Your task to perform on an android device: Open the calendar and show me this week's events Image 0: 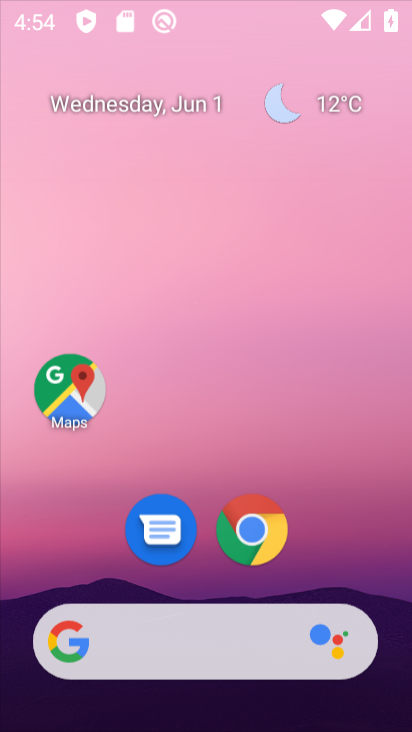
Step 0: click (179, 160)
Your task to perform on an android device: Open the calendar and show me this week's events Image 1: 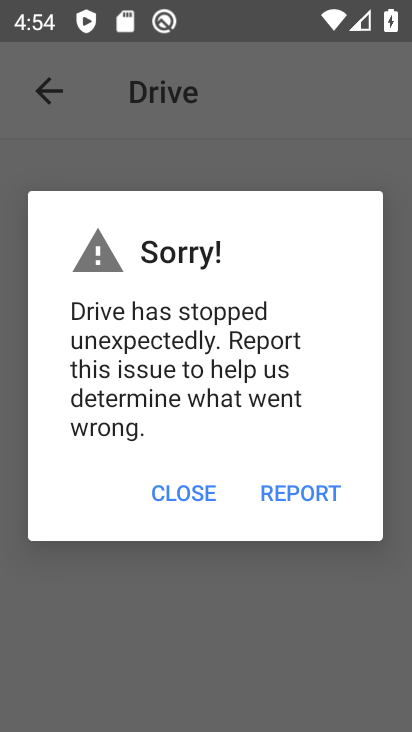
Step 1: press home button
Your task to perform on an android device: Open the calendar and show me this week's events Image 2: 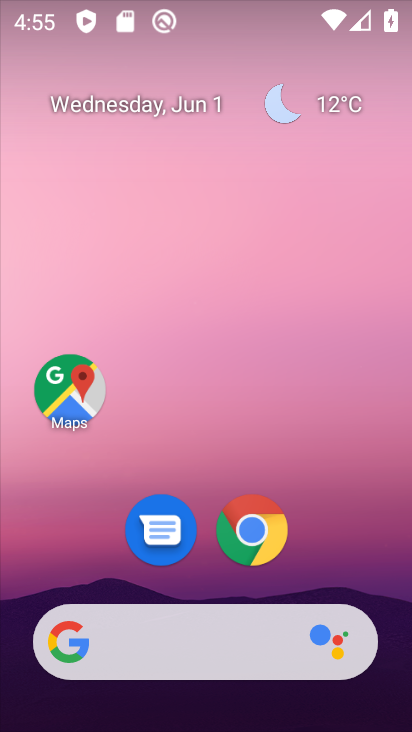
Step 2: drag from (182, 575) to (211, 121)
Your task to perform on an android device: Open the calendar and show me this week's events Image 3: 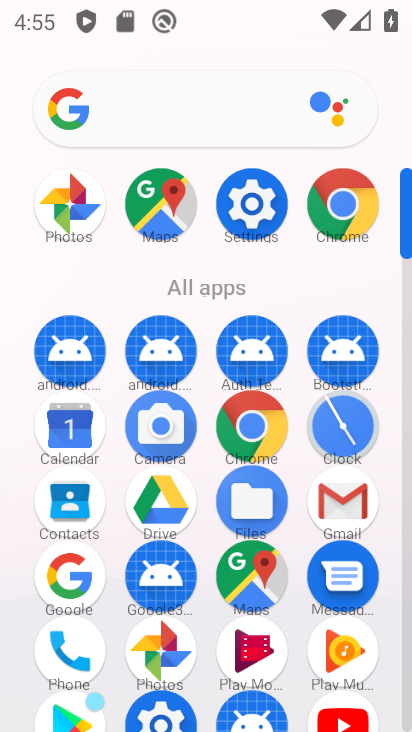
Step 3: click (79, 440)
Your task to perform on an android device: Open the calendar and show me this week's events Image 4: 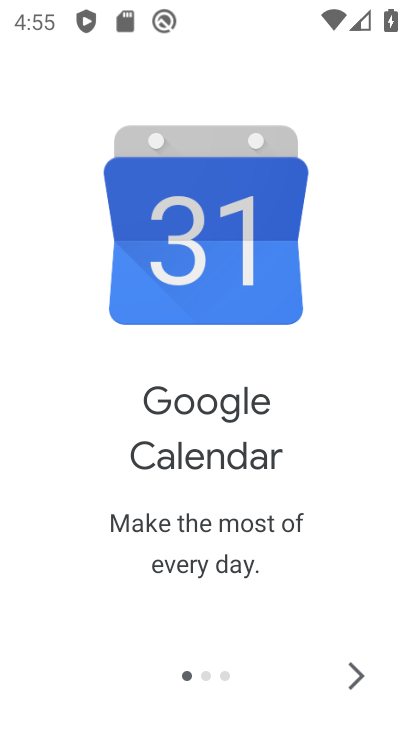
Step 4: click (361, 672)
Your task to perform on an android device: Open the calendar and show me this week's events Image 5: 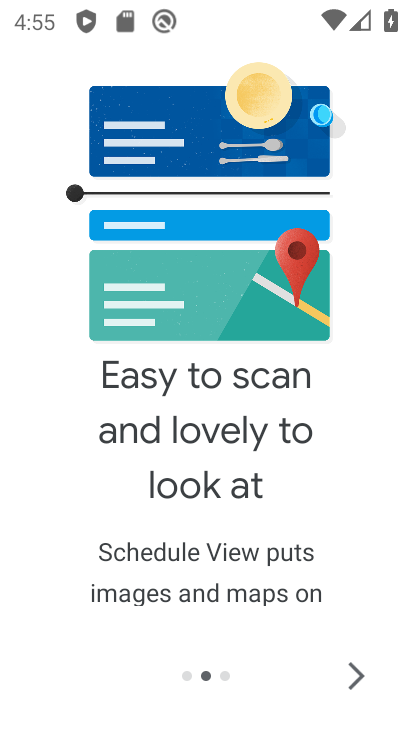
Step 5: click (361, 672)
Your task to perform on an android device: Open the calendar and show me this week's events Image 6: 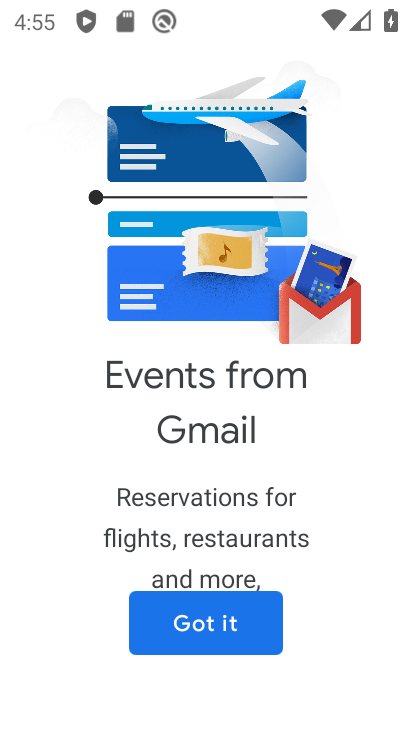
Step 6: click (202, 638)
Your task to perform on an android device: Open the calendar and show me this week's events Image 7: 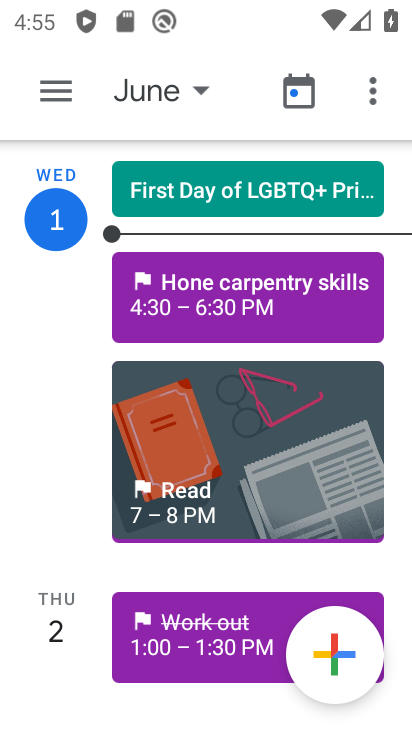
Step 7: click (56, 92)
Your task to perform on an android device: Open the calendar and show me this week's events Image 8: 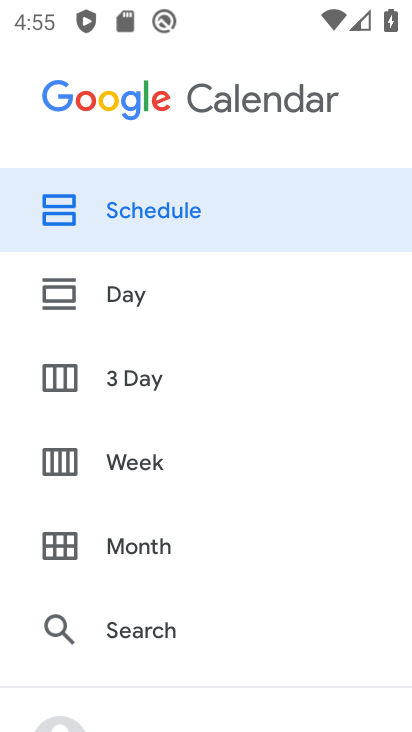
Step 8: click (125, 461)
Your task to perform on an android device: Open the calendar and show me this week's events Image 9: 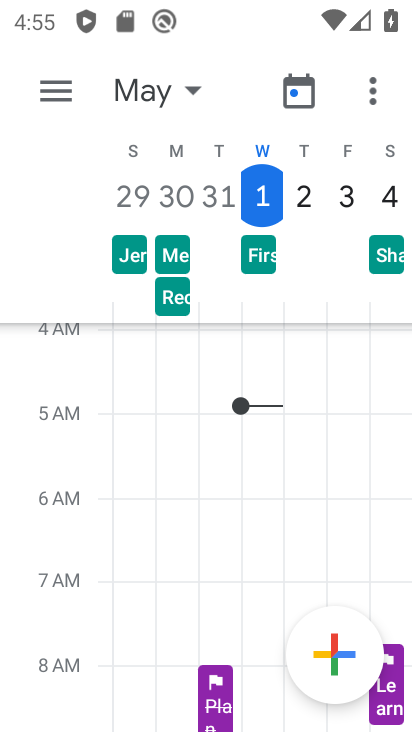
Step 9: click (153, 108)
Your task to perform on an android device: Open the calendar and show me this week's events Image 10: 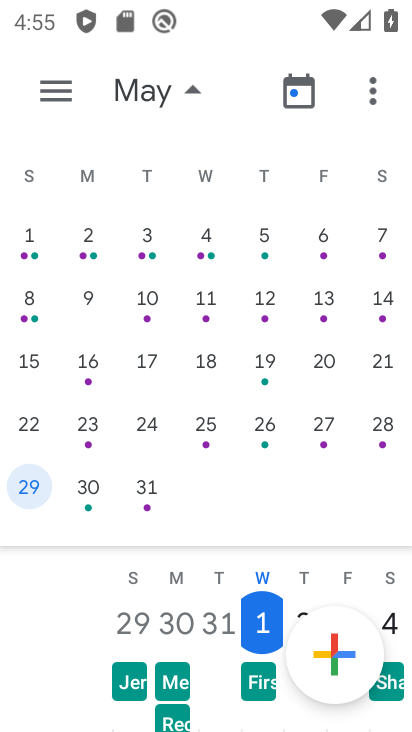
Step 10: task complete